Your task to perform on an android device: Open internet settings Image 0: 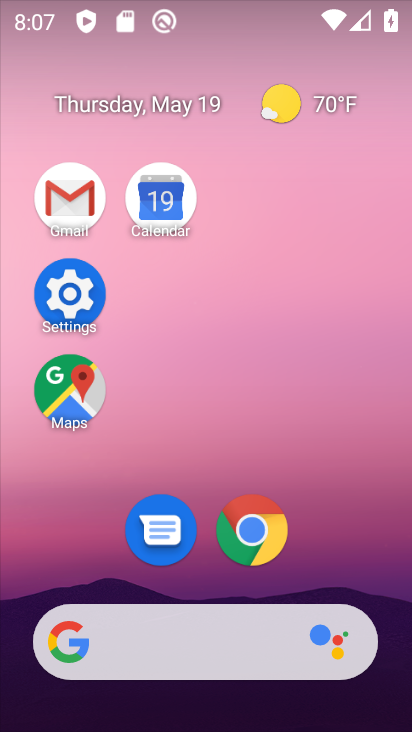
Step 0: click (85, 290)
Your task to perform on an android device: Open internet settings Image 1: 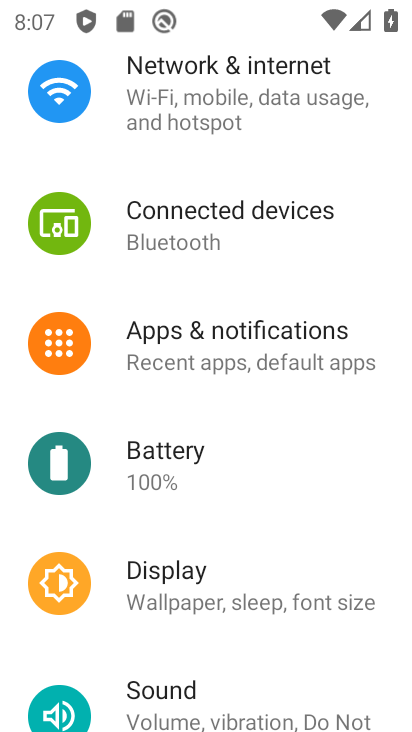
Step 1: click (195, 120)
Your task to perform on an android device: Open internet settings Image 2: 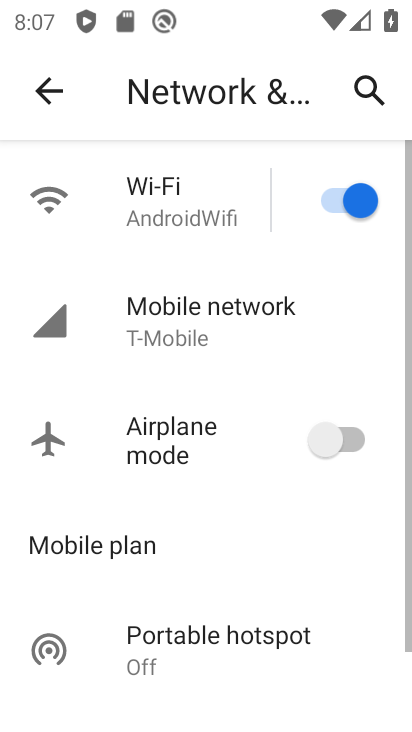
Step 2: click (207, 345)
Your task to perform on an android device: Open internet settings Image 3: 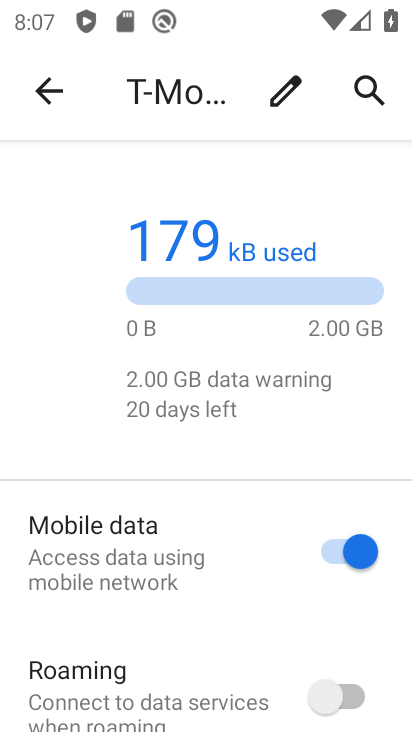
Step 3: task complete